Your task to perform on an android device: Open privacy settings Image 0: 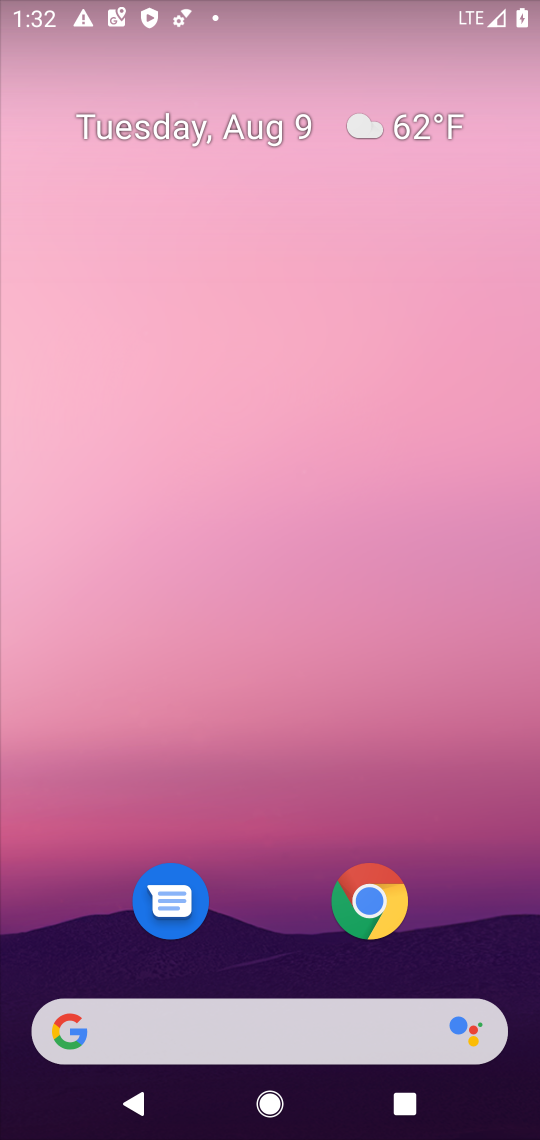
Step 0: drag from (522, 1025) to (443, 199)
Your task to perform on an android device: Open privacy settings Image 1: 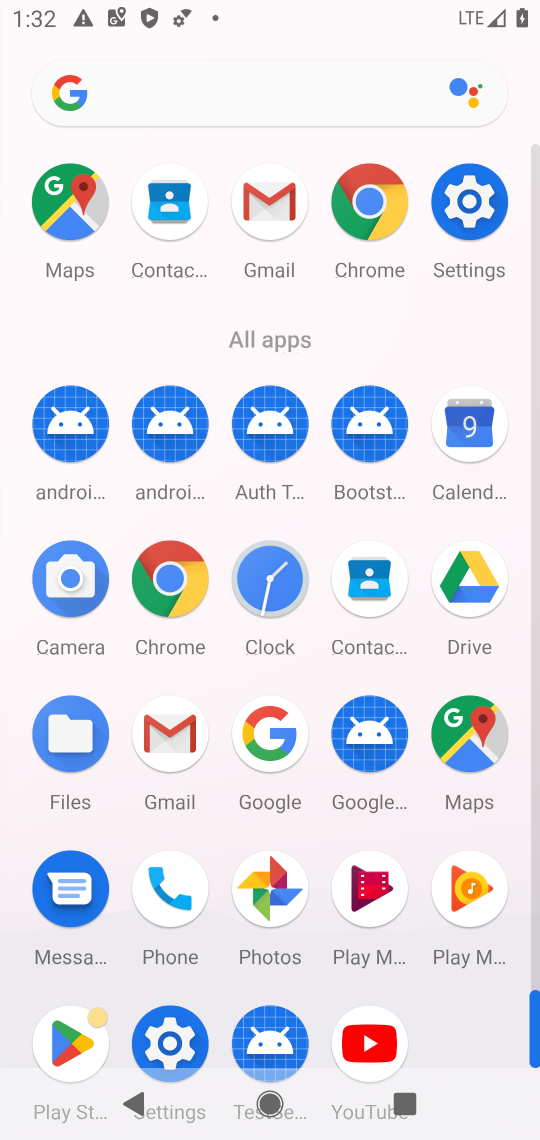
Step 1: click (171, 1044)
Your task to perform on an android device: Open privacy settings Image 2: 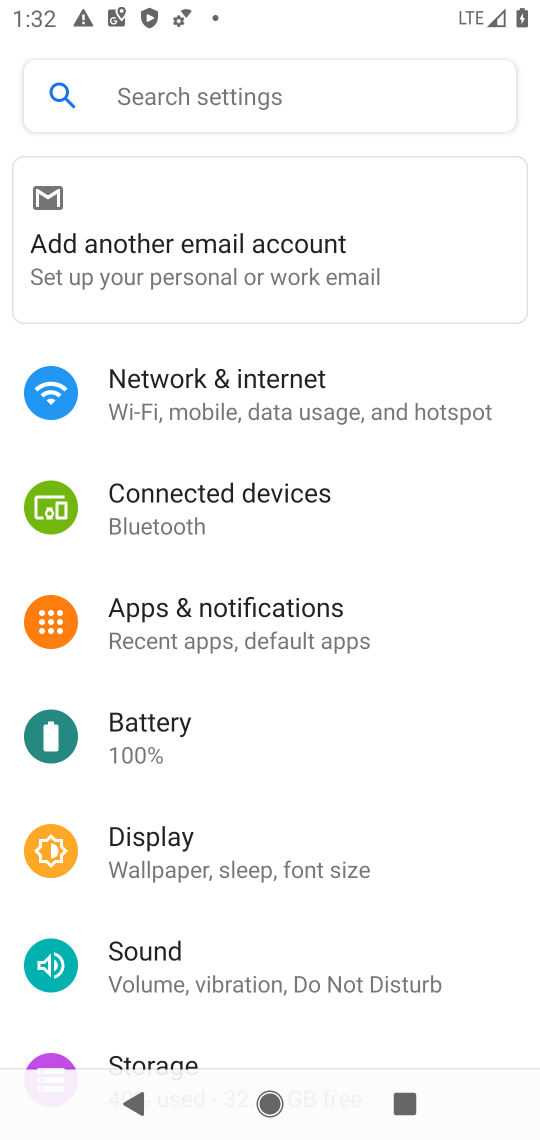
Step 2: drag from (485, 1010) to (474, 456)
Your task to perform on an android device: Open privacy settings Image 3: 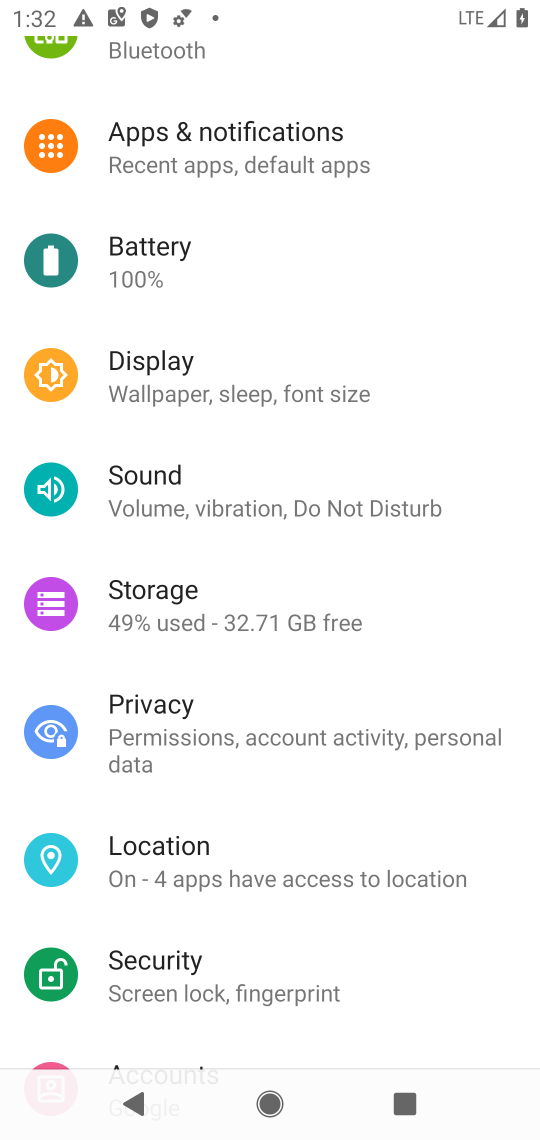
Step 3: click (128, 719)
Your task to perform on an android device: Open privacy settings Image 4: 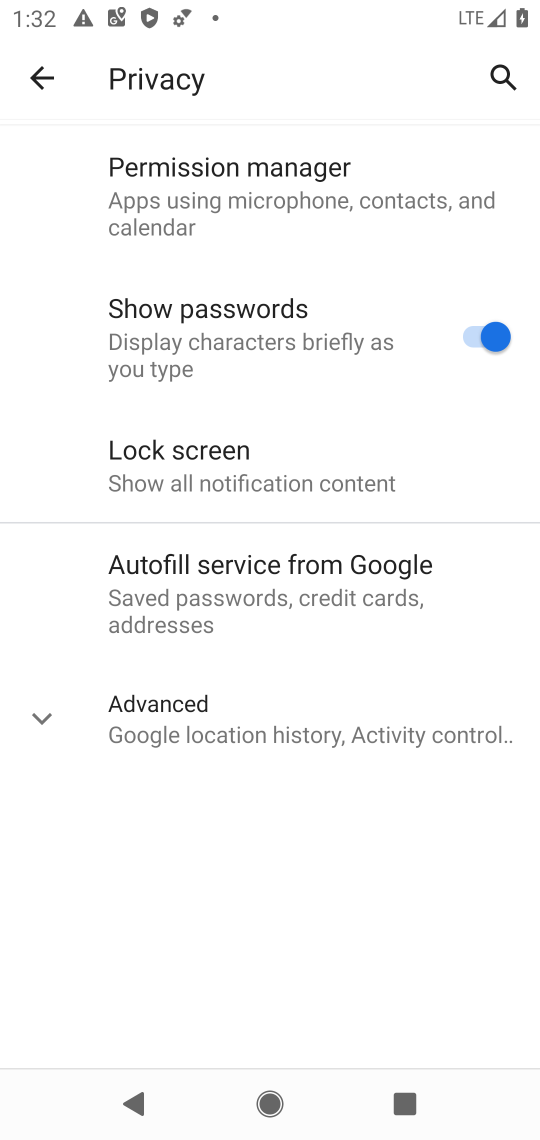
Step 4: click (55, 718)
Your task to perform on an android device: Open privacy settings Image 5: 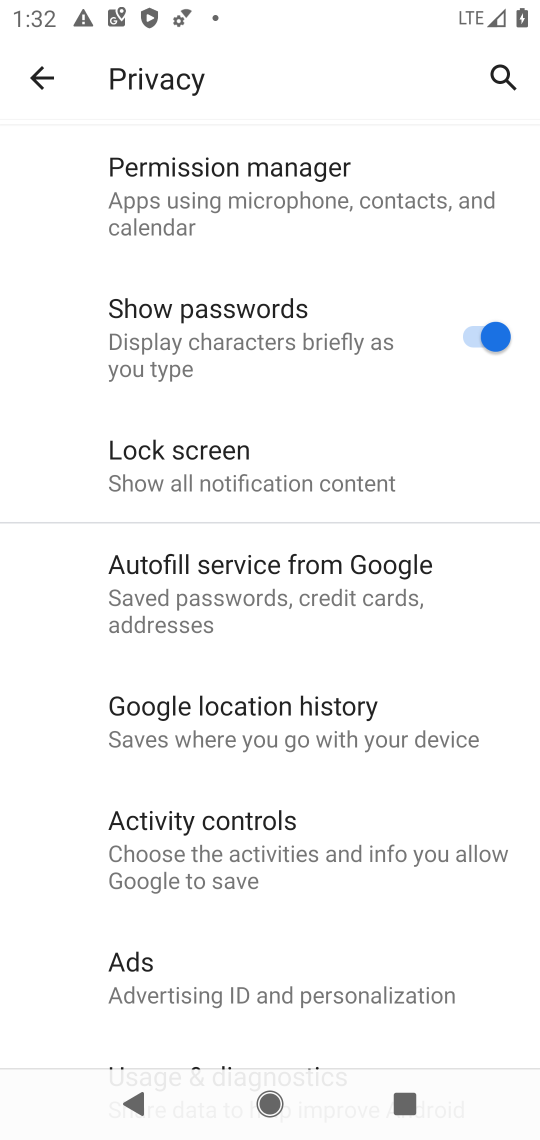
Step 5: task complete